Your task to perform on an android device: toggle airplane mode Image 0: 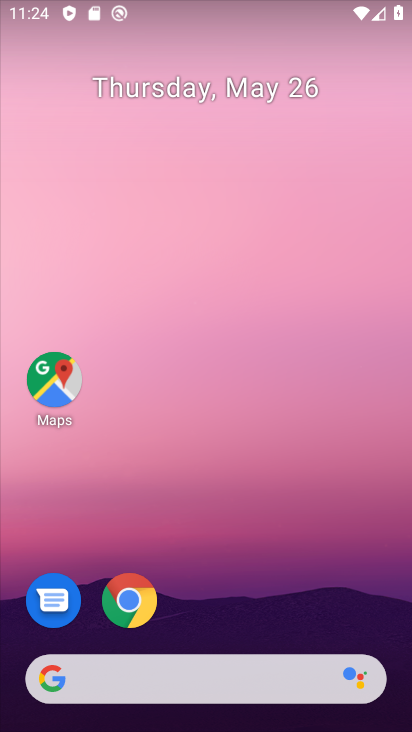
Step 0: drag from (267, 11) to (316, 717)
Your task to perform on an android device: toggle airplane mode Image 1: 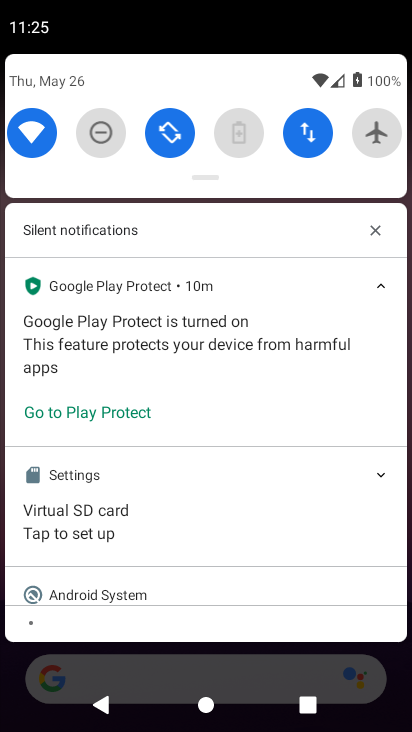
Step 1: click (381, 133)
Your task to perform on an android device: toggle airplane mode Image 2: 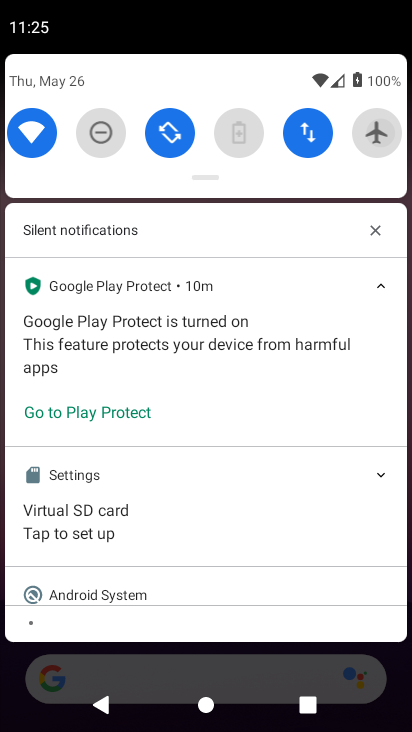
Step 2: click (381, 133)
Your task to perform on an android device: toggle airplane mode Image 3: 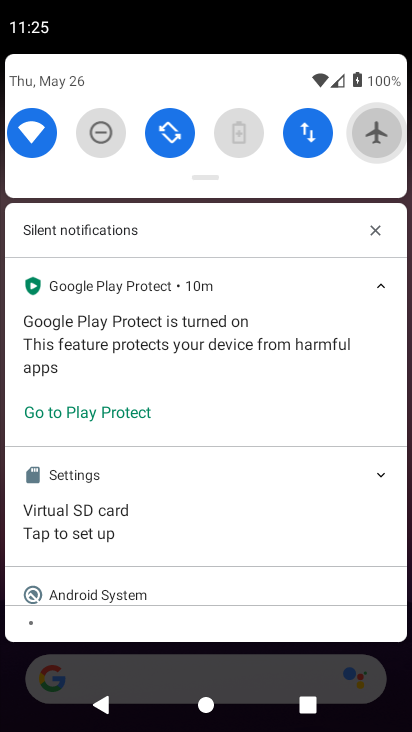
Step 3: click (381, 133)
Your task to perform on an android device: toggle airplane mode Image 4: 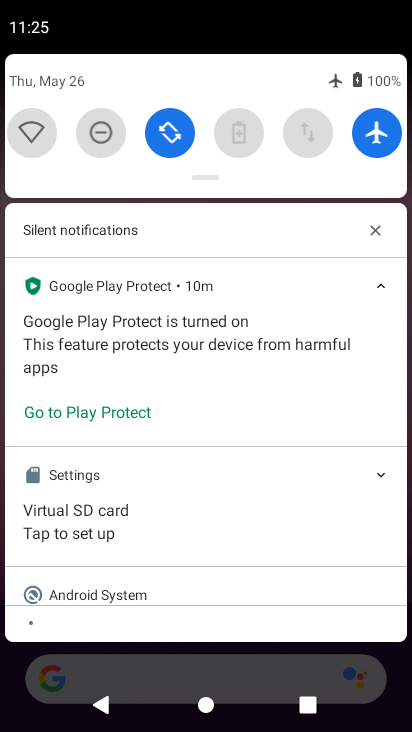
Step 4: click (381, 133)
Your task to perform on an android device: toggle airplane mode Image 5: 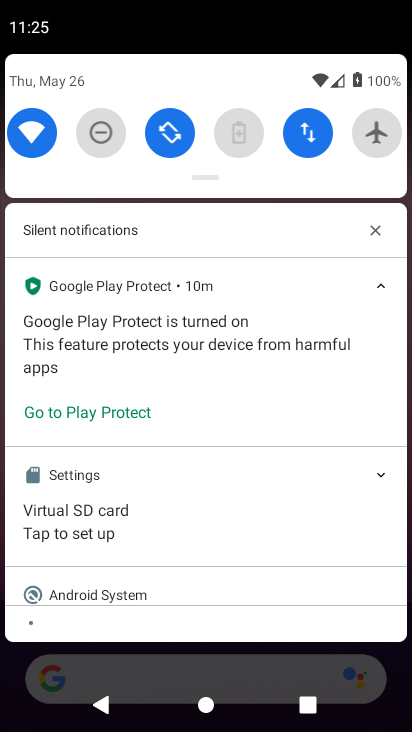
Step 5: click (320, 136)
Your task to perform on an android device: toggle airplane mode Image 6: 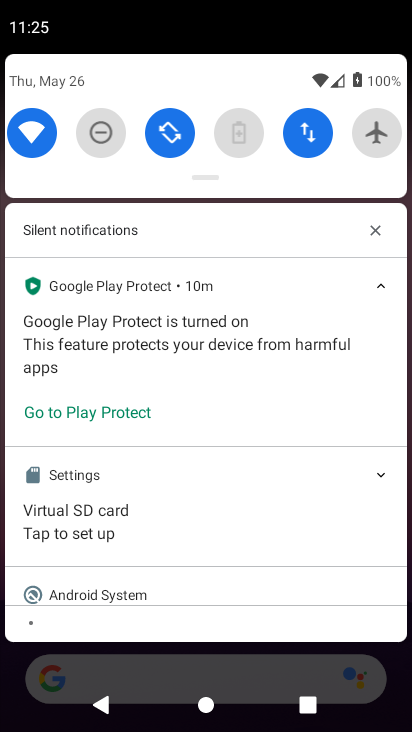
Step 6: click (320, 136)
Your task to perform on an android device: toggle airplane mode Image 7: 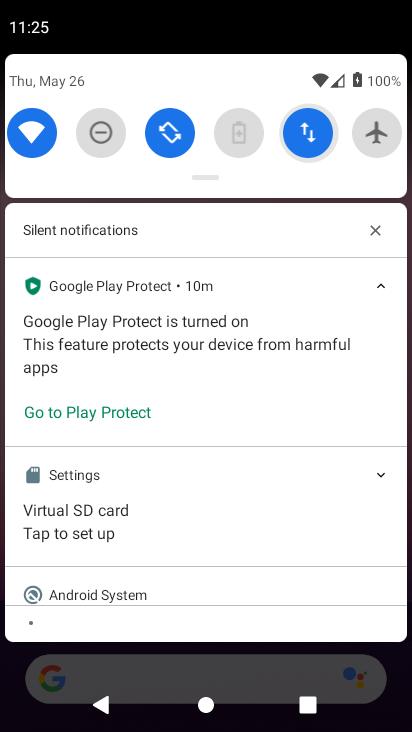
Step 7: click (320, 136)
Your task to perform on an android device: toggle airplane mode Image 8: 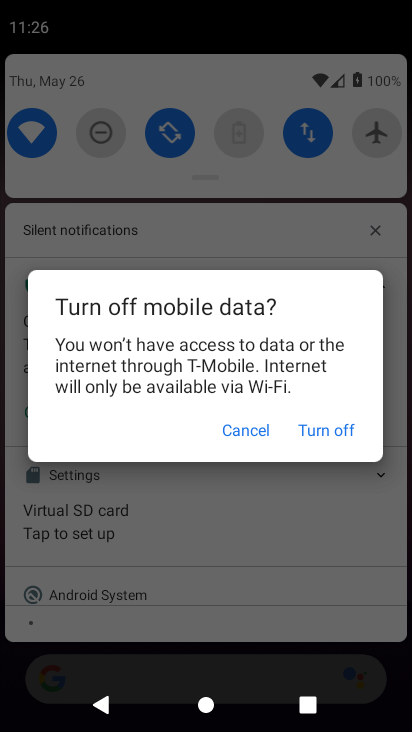
Step 8: click (320, 136)
Your task to perform on an android device: toggle airplane mode Image 9: 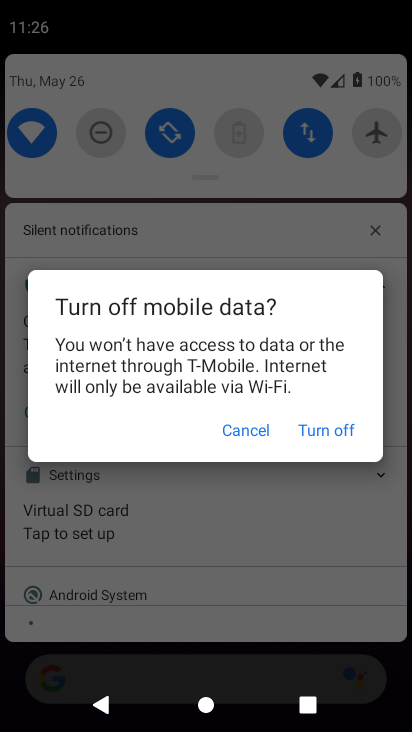
Step 9: click (320, 136)
Your task to perform on an android device: toggle airplane mode Image 10: 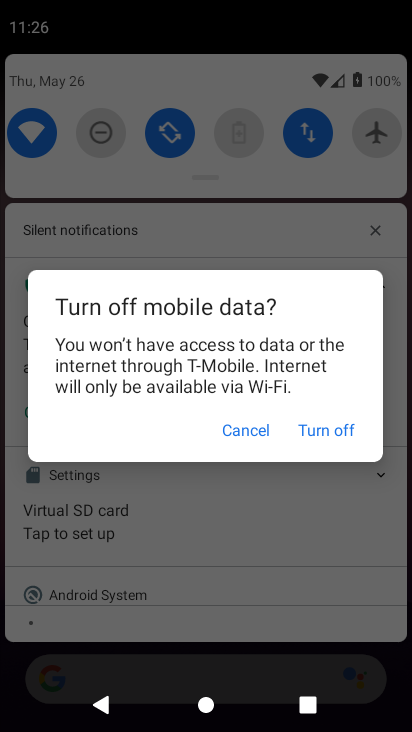
Step 10: click (320, 136)
Your task to perform on an android device: toggle airplane mode Image 11: 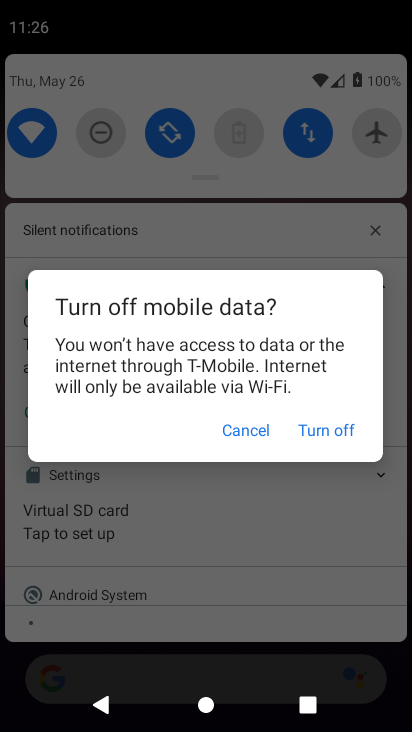
Step 11: click (247, 434)
Your task to perform on an android device: toggle airplane mode Image 12: 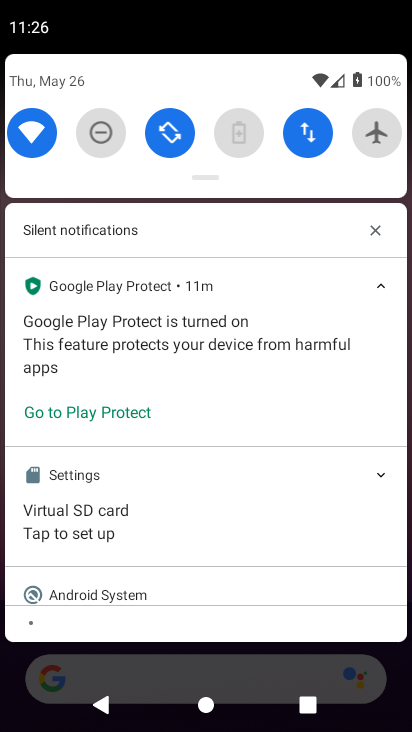
Step 12: click (375, 123)
Your task to perform on an android device: toggle airplane mode Image 13: 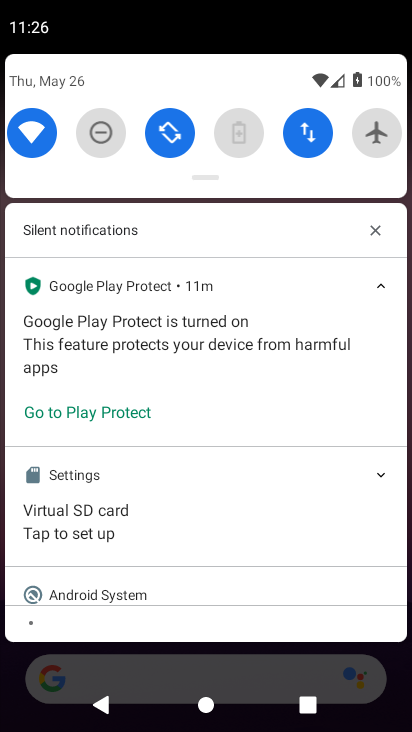
Step 13: click (375, 123)
Your task to perform on an android device: toggle airplane mode Image 14: 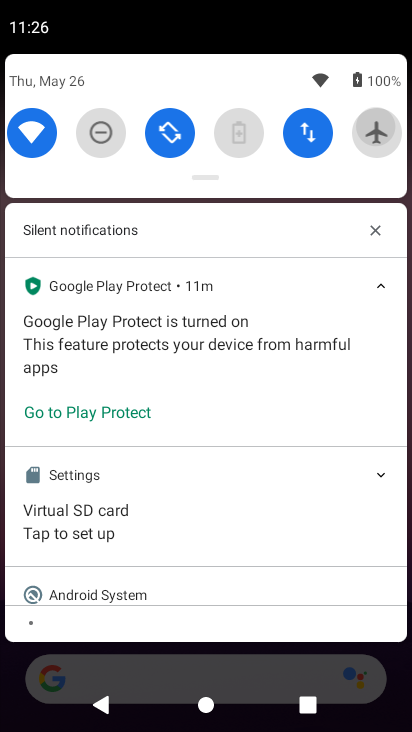
Step 14: click (375, 123)
Your task to perform on an android device: toggle airplane mode Image 15: 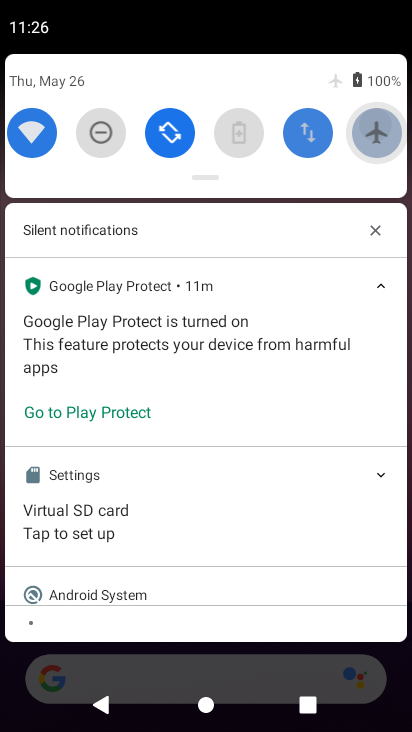
Step 15: click (375, 123)
Your task to perform on an android device: toggle airplane mode Image 16: 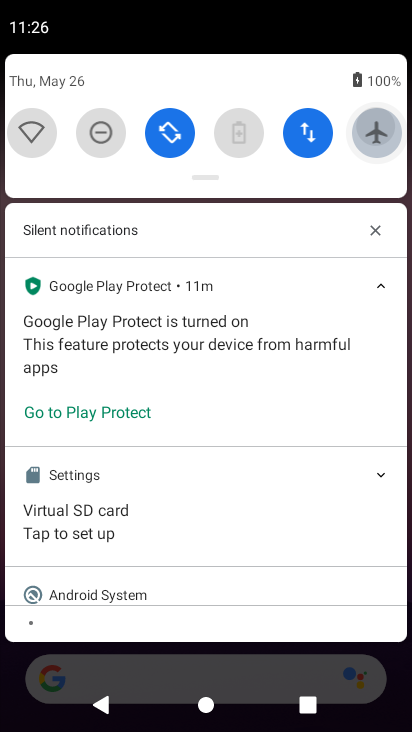
Step 16: click (375, 123)
Your task to perform on an android device: toggle airplane mode Image 17: 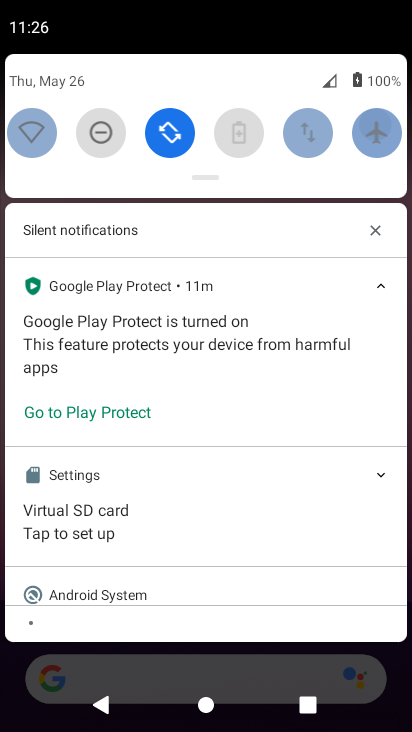
Step 17: click (375, 123)
Your task to perform on an android device: toggle airplane mode Image 18: 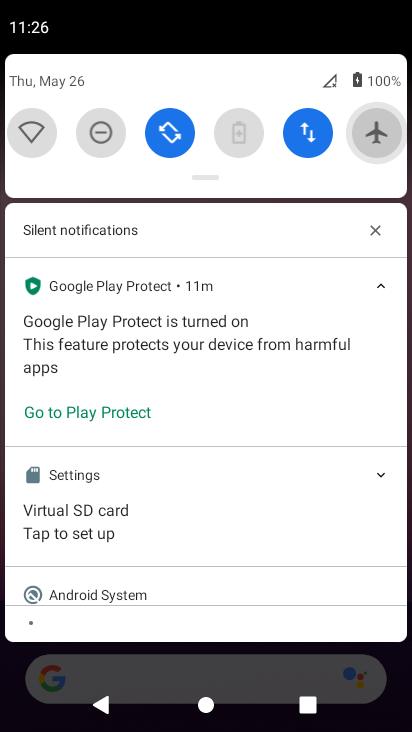
Step 18: click (375, 123)
Your task to perform on an android device: toggle airplane mode Image 19: 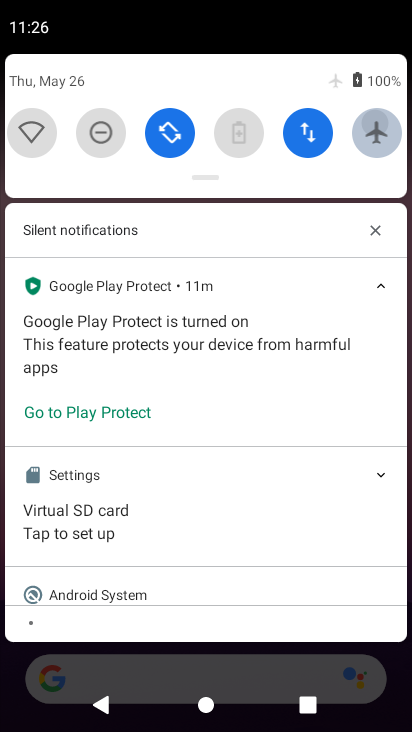
Step 19: click (375, 123)
Your task to perform on an android device: toggle airplane mode Image 20: 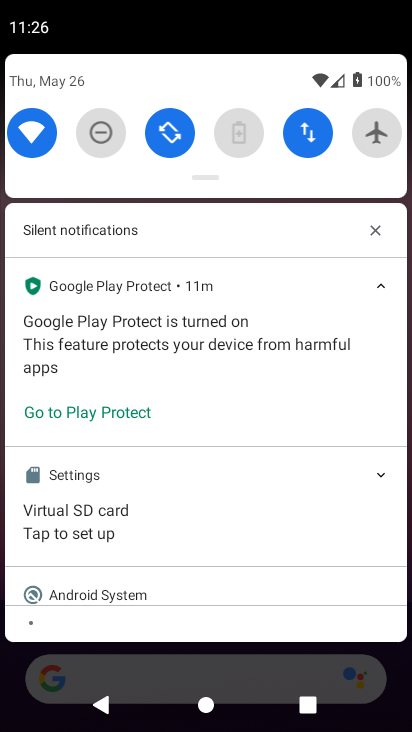
Step 20: task complete